Your task to perform on an android device: Open location settings Image 0: 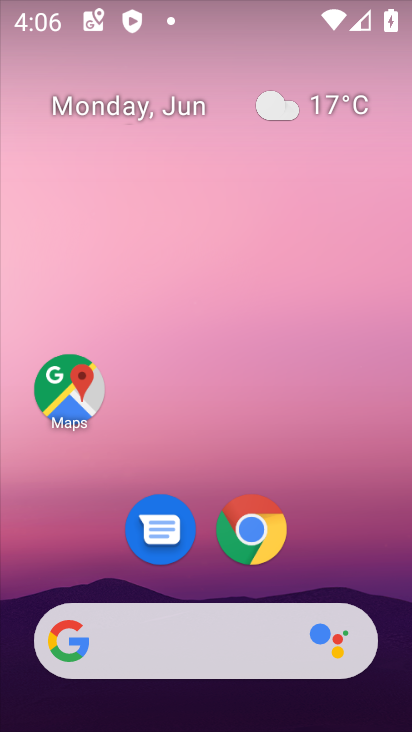
Step 0: drag from (349, 546) to (266, 1)
Your task to perform on an android device: Open location settings Image 1: 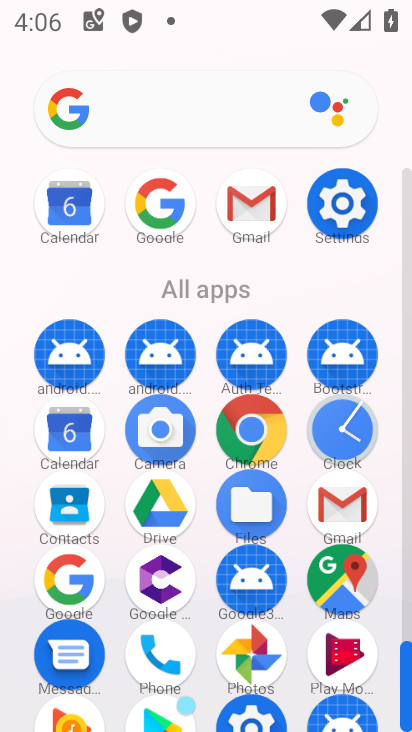
Step 1: click (342, 200)
Your task to perform on an android device: Open location settings Image 2: 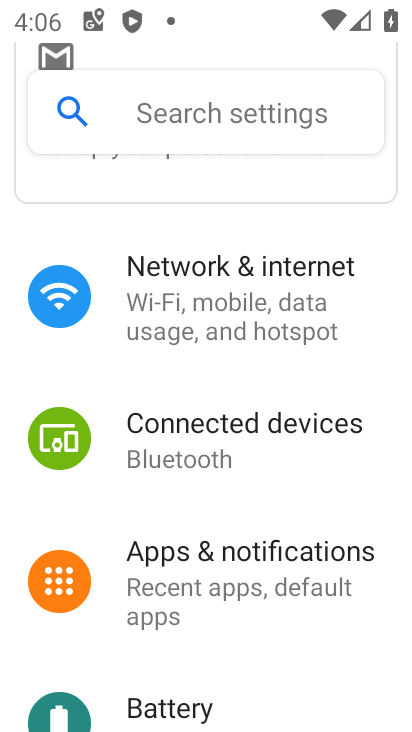
Step 2: drag from (241, 640) to (208, 191)
Your task to perform on an android device: Open location settings Image 3: 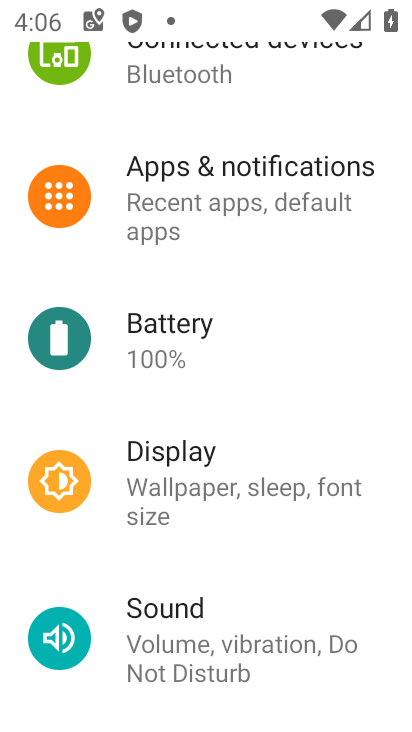
Step 3: drag from (234, 540) to (204, 196)
Your task to perform on an android device: Open location settings Image 4: 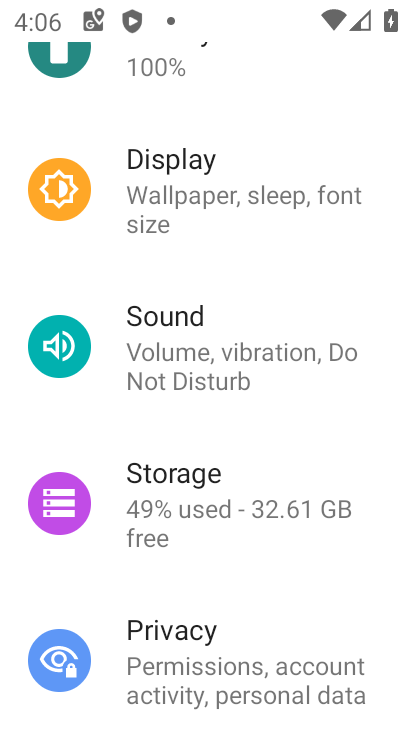
Step 4: drag from (208, 571) to (197, 240)
Your task to perform on an android device: Open location settings Image 5: 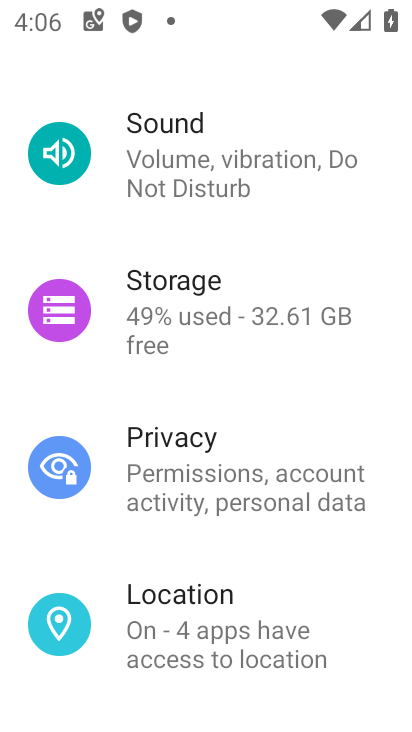
Step 5: click (196, 581)
Your task to perform on an android device: Open location settings Image 6: 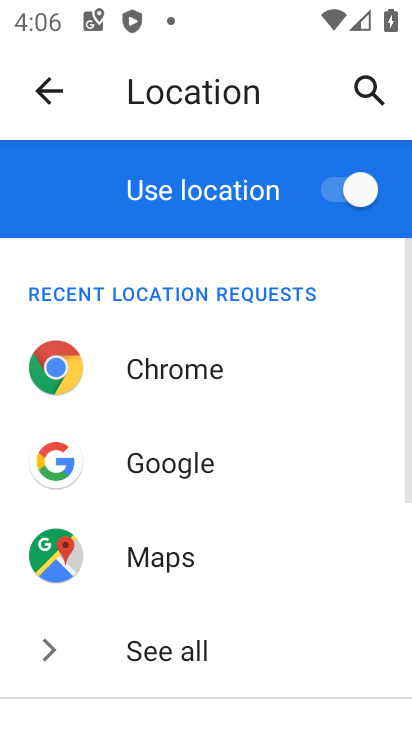
Step 6: task complete